Your task to perform on an android device: turn off notifications in google photos Image 0: 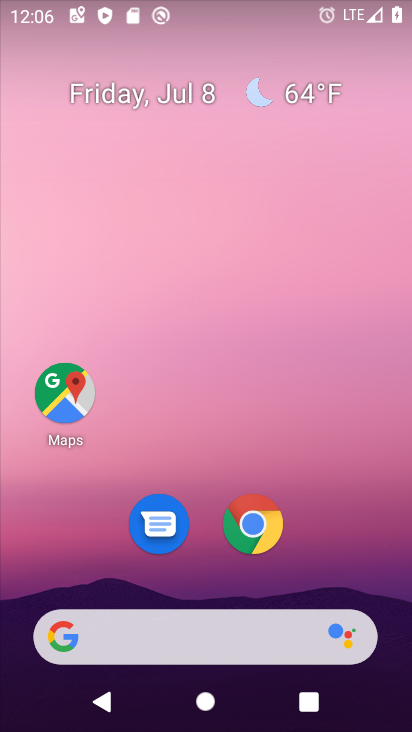
Step 0: drag from (337, 516) to (342, 38)
Your task to perform on an android device: turn off notifications in google photos Image 1: 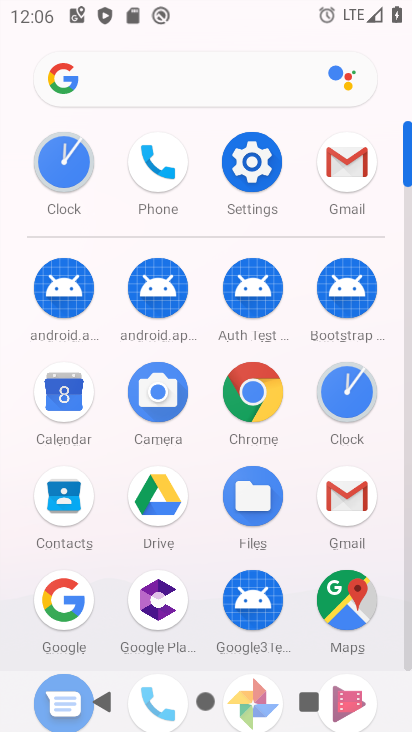
Step 1: drag from (205, 481) to (197, 234)
Your task to perform on an android device: turn off notifications in google photos Image 2: 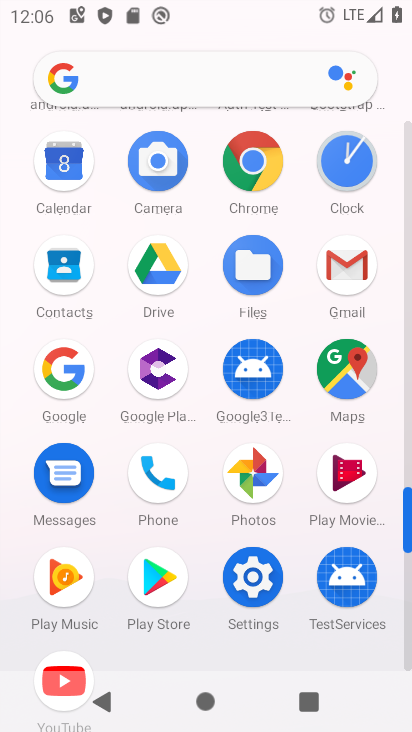
Step 2: click (252, 463)
Your task to perform on an android device: turn off notifications in google photos Image 3: 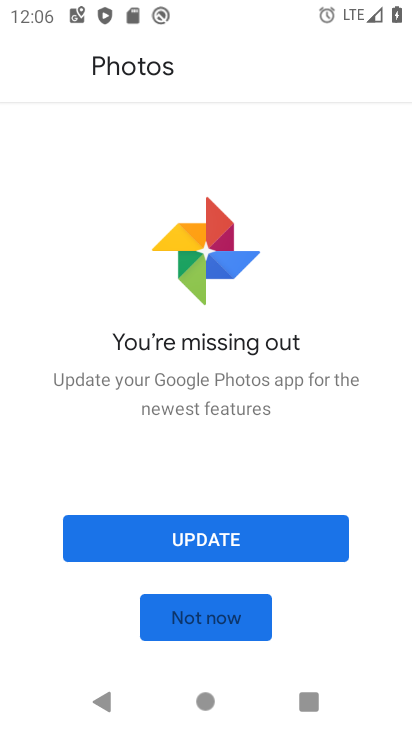
Step 3: click (253, 615)
Your task to perform on an android device: turn off notifications in google photos Image 4: 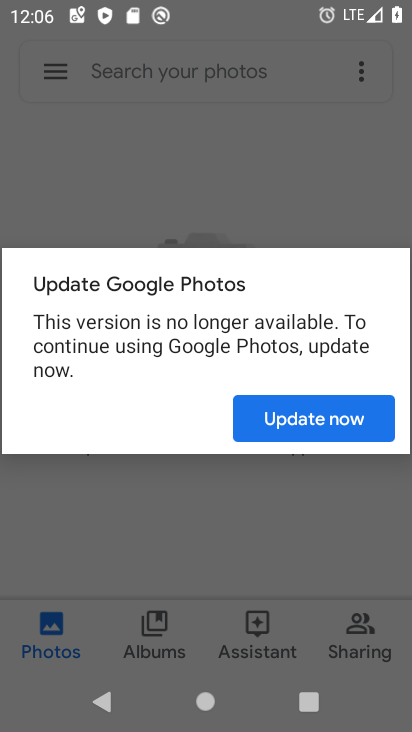
Step 4: click (272, 426)
Your task to perform on an android device: turn off notifications in google photos Image 5: 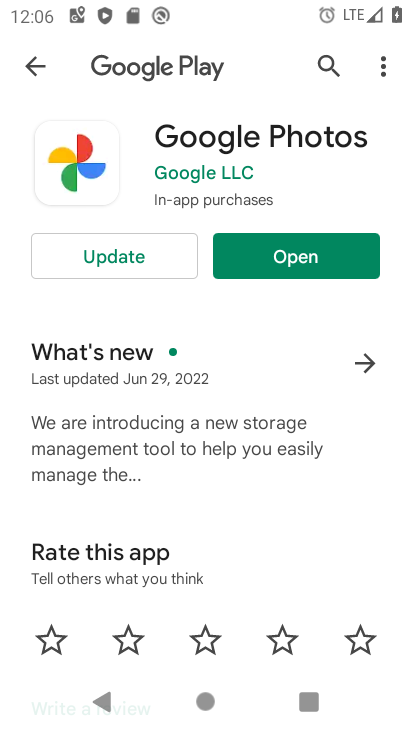
Step 5: click (316, 260)
Your task to perform on an android device: turn off notifications in google photos Image 6: 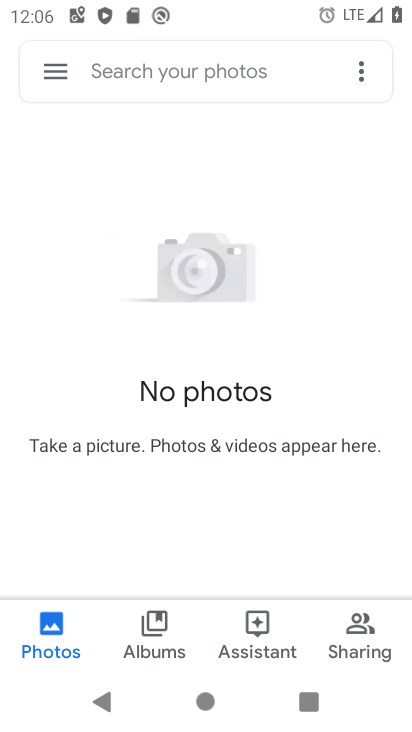
Step 6: click (49, 67)
Your task to perform on an android device: turn off notifications in google photos Image 7: 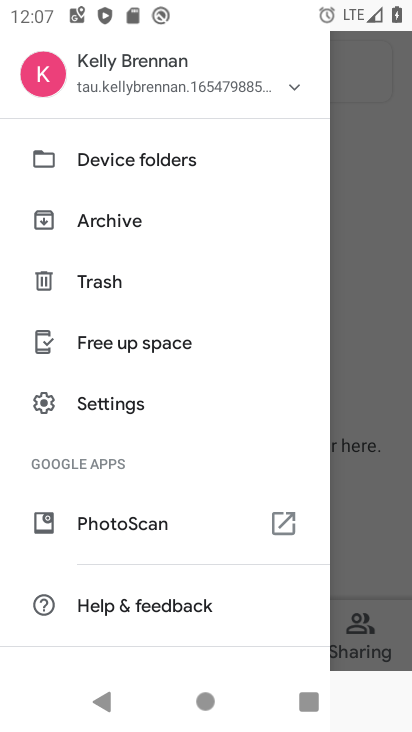
Step 7: click (135, 402)
Your task to perform on an android device: turn off notifications in google photos Image 8: 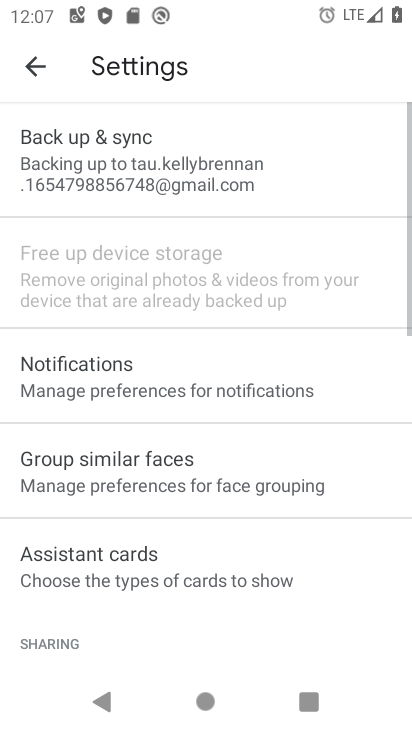
Step 8: click (135, 374)
Your task to perform on an android device: turn off notifications in google photos Image 9: 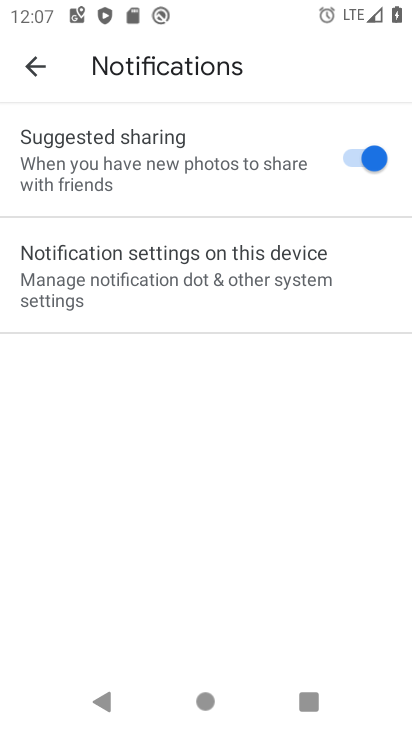
Step 9: click (357, 151)
Your task to perform on an android device: turn off notifications in google photos Image 10: 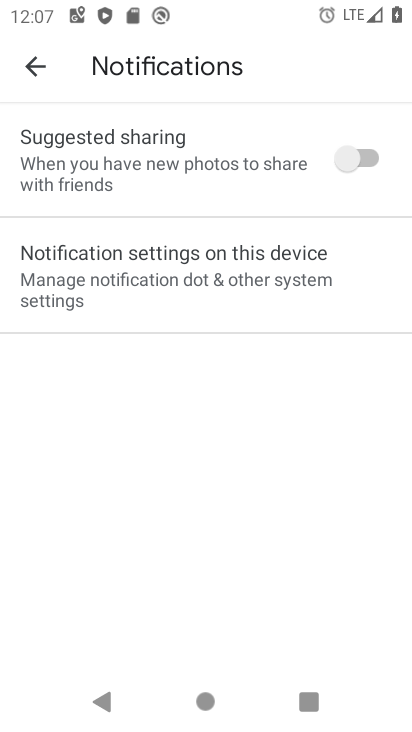
Step 10: task complete